Your task to perform on an android device: Show me the alarms in the clock app Image 0: 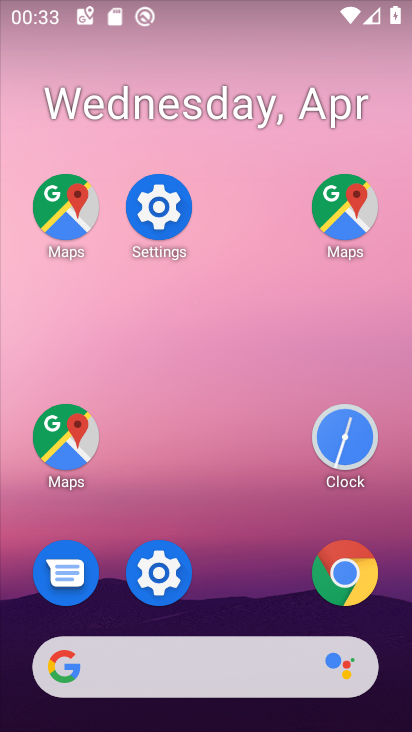
Step 0: drag from (269, 699) to (264, 123)
Your task to perform on an android device: Show me the alarms in the clock app Image 1: 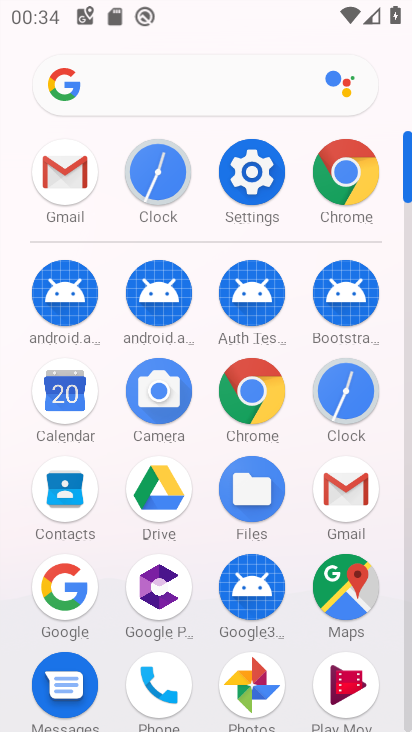
Step 1: click (332, 398)
Your task to perform on an android device: Show me the alarms in the clock app Image 2: 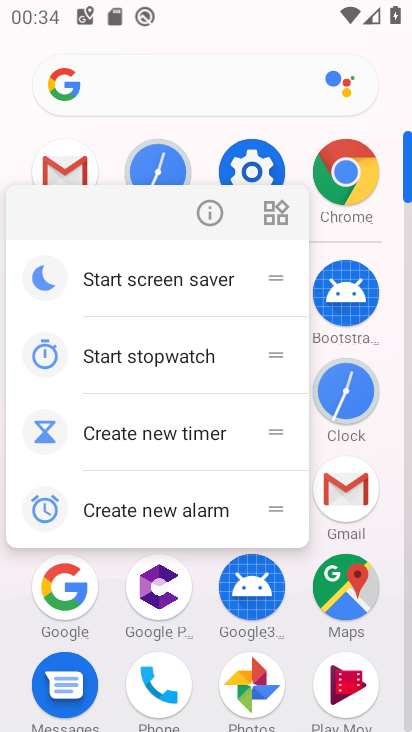
Step 2: click (345, 388)
Your task to perform on an android device: Show me the alarms in the clock app Image 3: 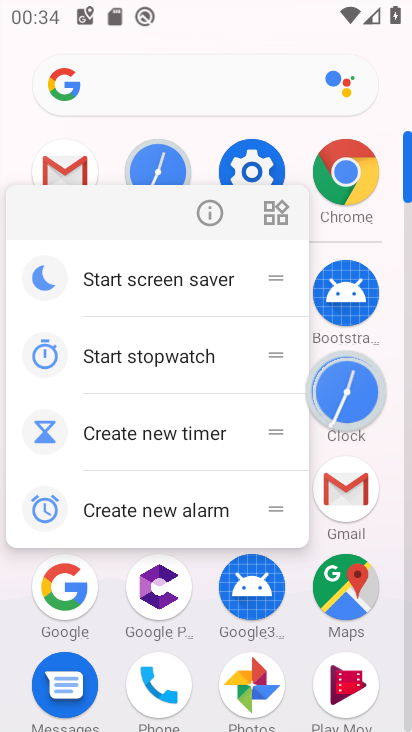
Step 3: click (345, 388)
Your task to perform on an android device: Show me the alarms in the clock app Image 4: 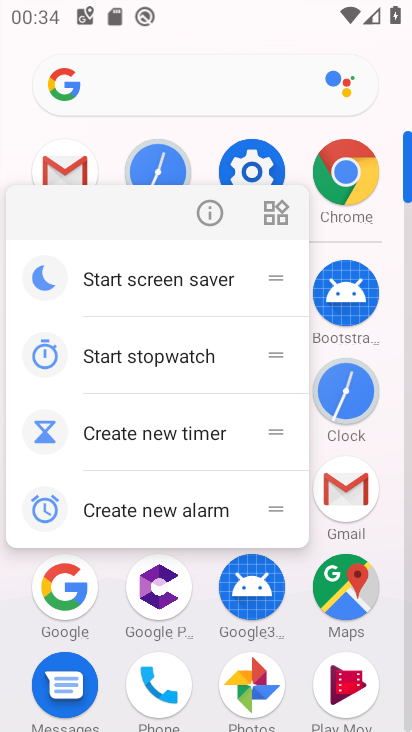
Step 4: click (339, 386)
Your task to perform on an android device: Show me the alarms in the clock app Image 5: 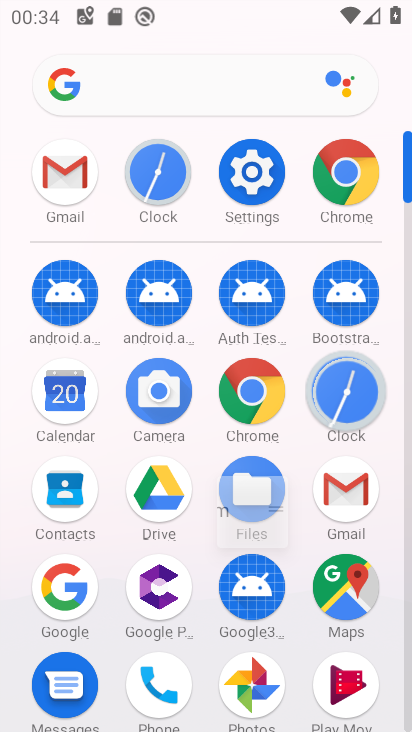
Step 5: click (339, 386)
Your task to perform on an android device: Show me the alarms in the clock app Image 6: 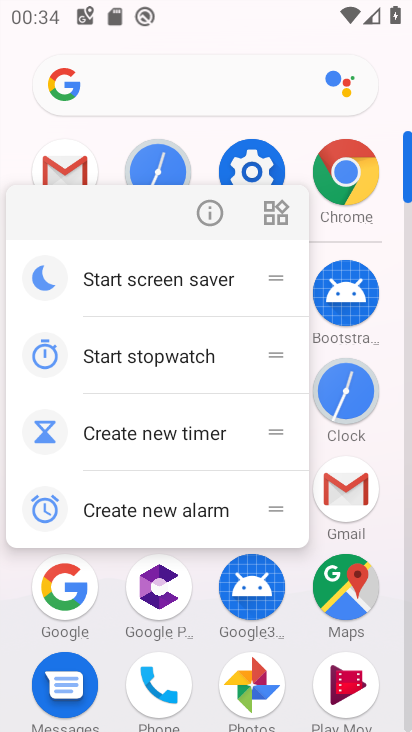
Step 6: click (340, 385)
Your task to perform on an android device: Show me the alarms in the clock app Image 7: 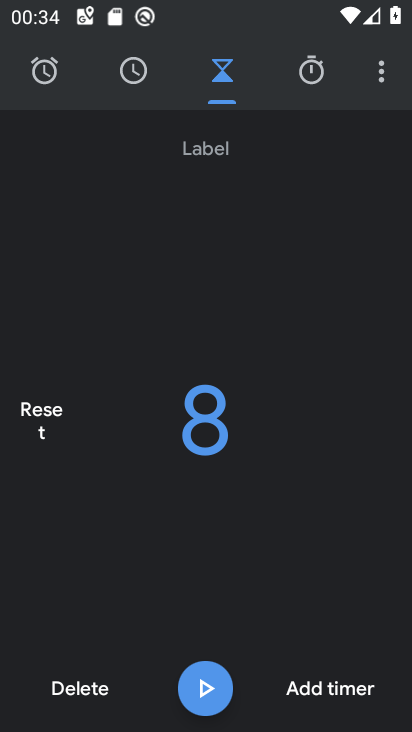
Step 7: click (53, 81)
Your task to perform on an android device: Show me the alarms in the clock app Image 8: 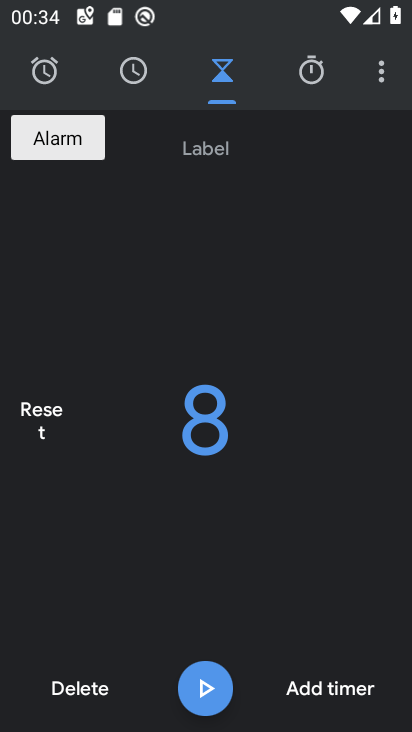
Step 8: click (53, 81)
Your task to perform on an android device: Show me the alarms in the clock app Image 9: 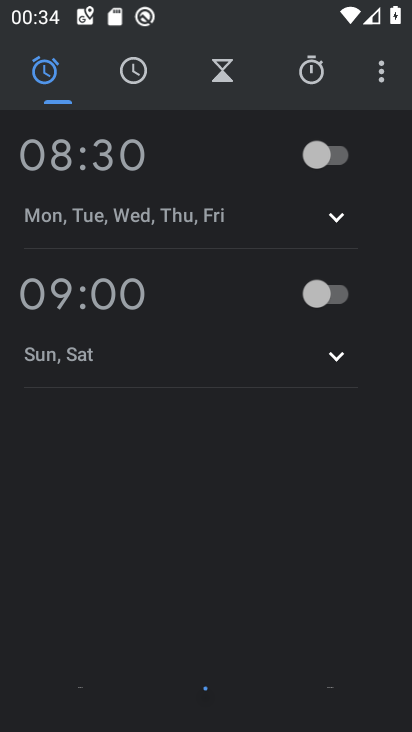
Step 9: click (41, 77)
Your task to perform on an android device: Show me the alarms in the clock app Image 10: 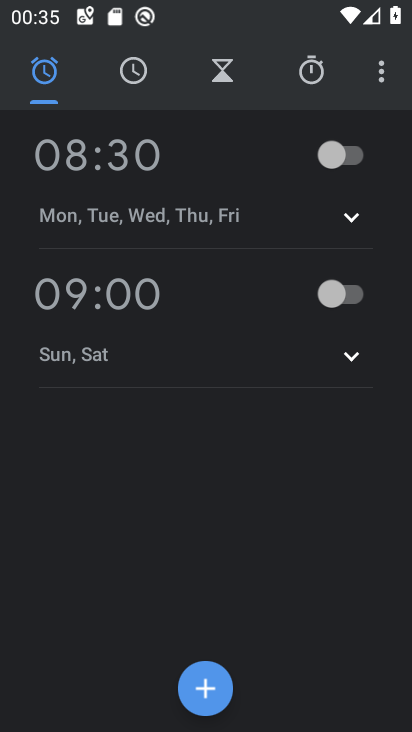
Step 10: task complete